Your task to perform on an android device: Search for flights from Seoul to Mexico city Image 0: 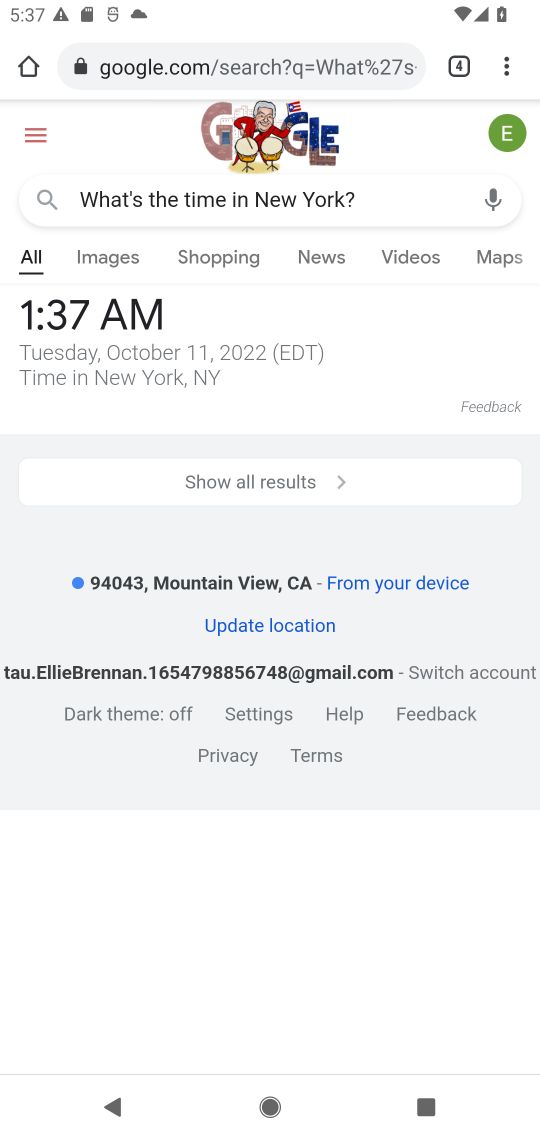
Step 0: click (351, 74)
Your task to perform on an android device: Search for flights from Seoul to Mexico city Image 1: 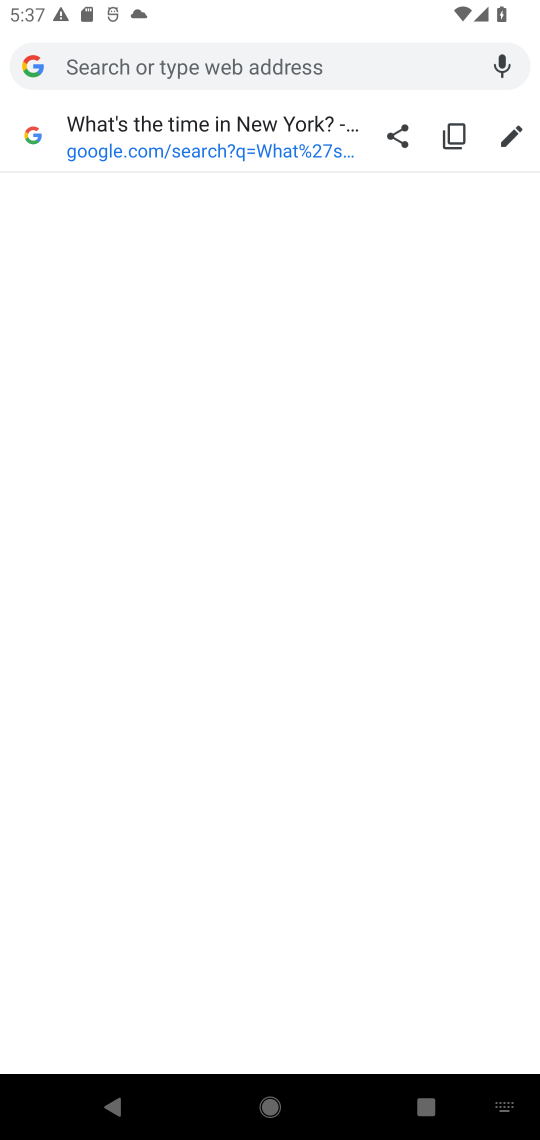
Step 1: type "Search for flights from Seoul to Mexico city"
Your task to perform on an android device: Search for flights from Seoul to Mexico city Image 2: 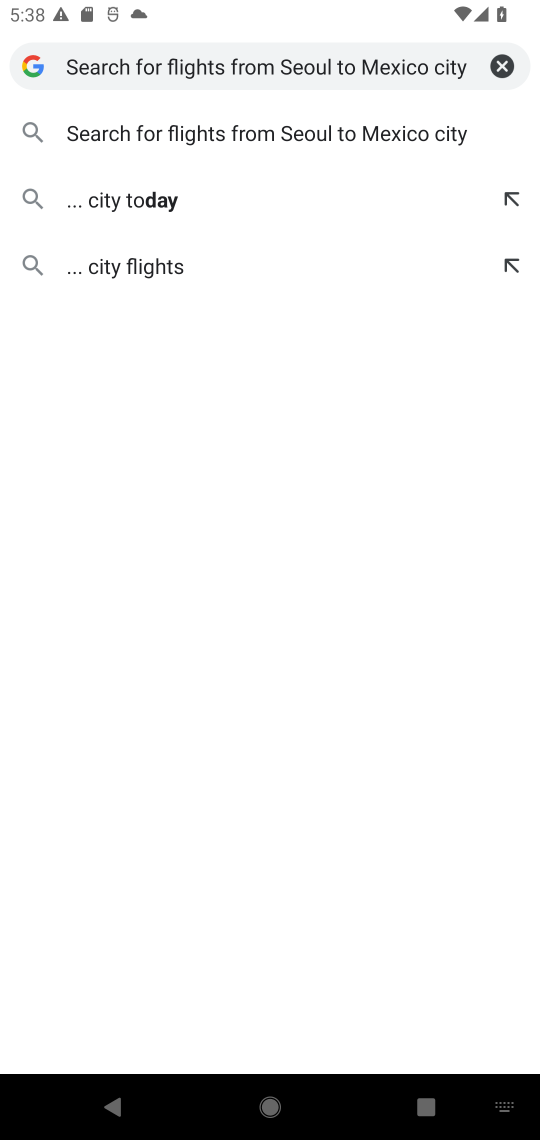
Step 2: press enter
Your task to perform on an android device: Search for flights from Seoul to Mexico city Image 3: 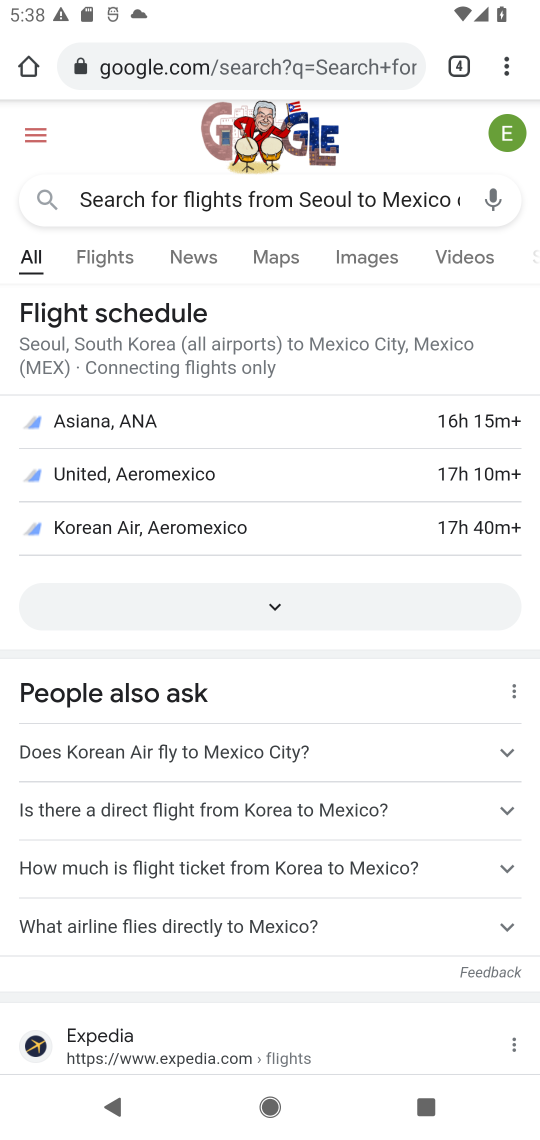
Step 3: task complete